Your task to perform on an android device: delete browsing data in the chrome app Image 0: 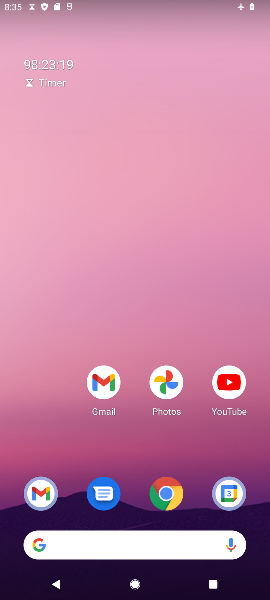
Step 0: drag from (150, 491) to (156, 189)
Your task to perform on an android device: delete browsing data in the chrome app Image 1: 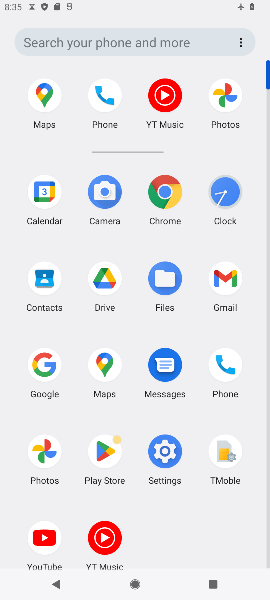
Step 1: click (170, 191)
Your task to perform on an android device: delete browsing data in the chrome app Image 2: 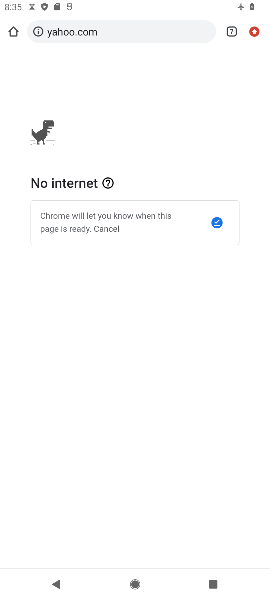
Step 2: click (260, 27)
Your task to perform on an android device: delete browsing data in the chrome app Image 3: 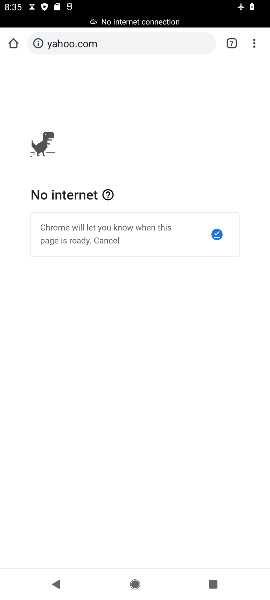
Step 3: click (254, 30)
Your task to perform on an android device: delete browsing data in the chrome app Image 4: 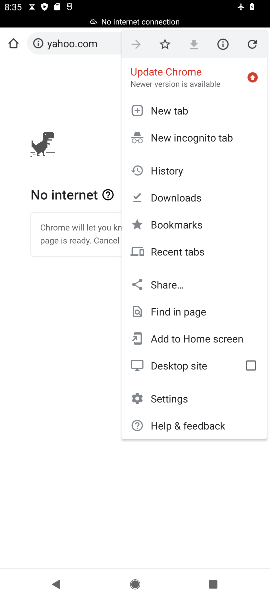
Step 4: click (163, 399)
Your task to perform on an android device: delete browsing data in the chrome app Image 5: 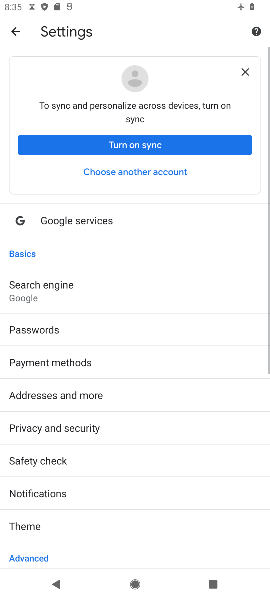
Step 5: drag from (85, 524) to (133, 172)
Your task to perform on an android device: delete browsing data in the chrome app Image 6: 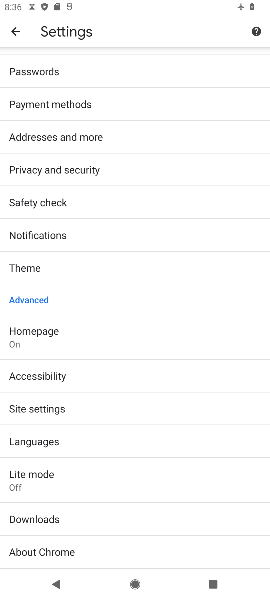
Step 6: click (72, 400)
Your task to perform on an android device: delete browsing data in the chrome app Image 7: 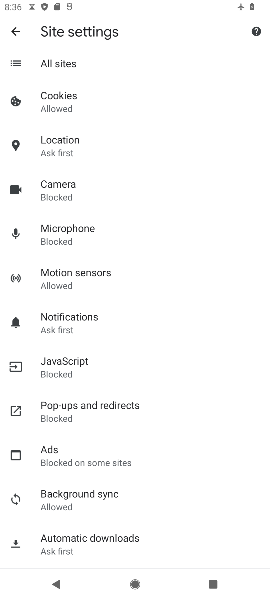
Step 7: click (12, 30)
Your task to perform on an android device: delete browsing data in the chrome app Image 8: 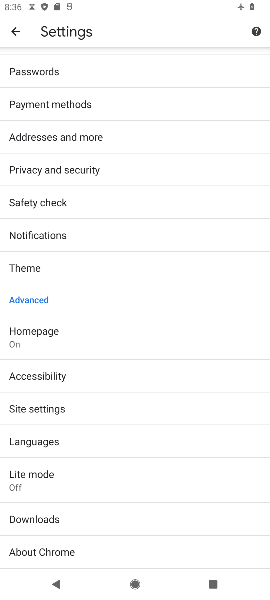
Step 8: drag from (74, 223) to (75, 389)
Your task to perform on an android device: delete browsing data in the chrome app Image 9: 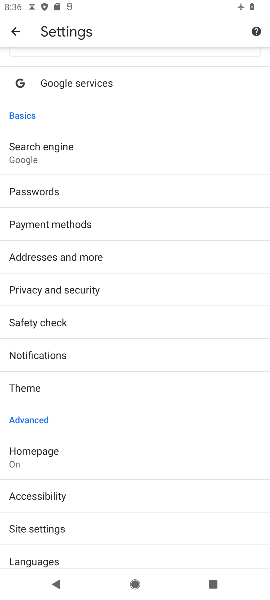
Step 9: drag from (71, 519) to (128, 211)
Your task to perform on an android device: delete browsing data in the chrome app Image 10: 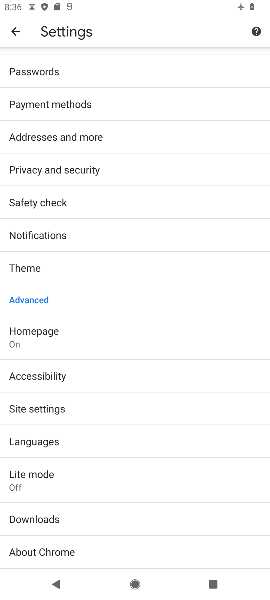
Step 10: drag from (98, 475) to (149, 231)
Your task to perform on an android device: delete browsing data in the chrome app Image 11: 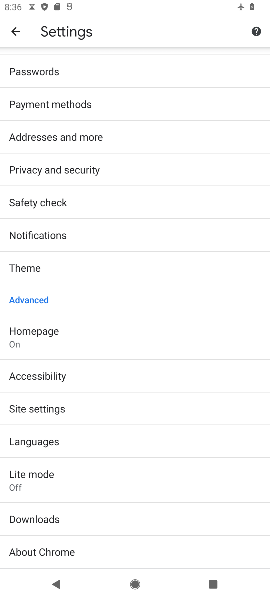
Step 11: click (71, 401)
Your task to perform on an android device: delete browsing data in the chrome app Image 12: 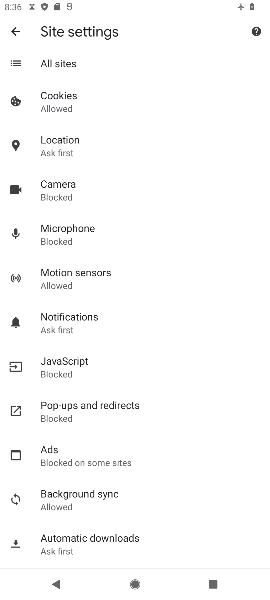
Step 12: click (19, 23)
Your task to perform on an android device: delete browsing data in the chrome app Image 13: 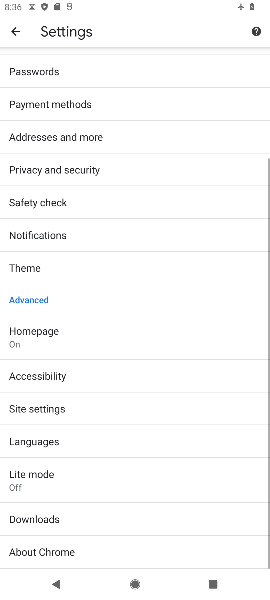
Step 13: click (19, 23)
Your task to perform on an android device: delete browsing data in the chrome app Image 14: 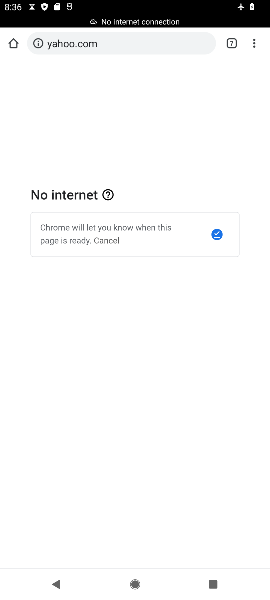
Step 14: click (258, 40)
Your task to perform on an android device: delete browsing data in the chrome app Image 15: 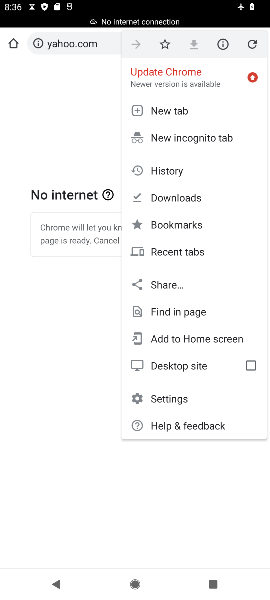
Step 15: click (181, 401)
Your task to perform on an android device: delete browsing data in the chrome app Image 16: 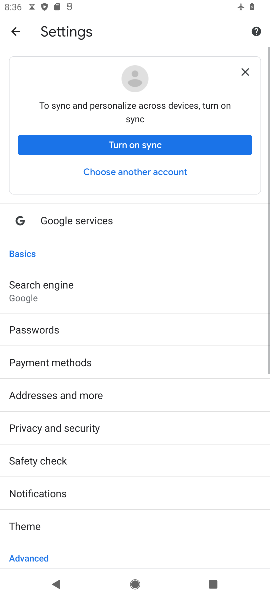
Step 16: drag from (73, 498) to (89, 324)
Your task to perform on an android device: delete browsing data in the chrome app Image 17: 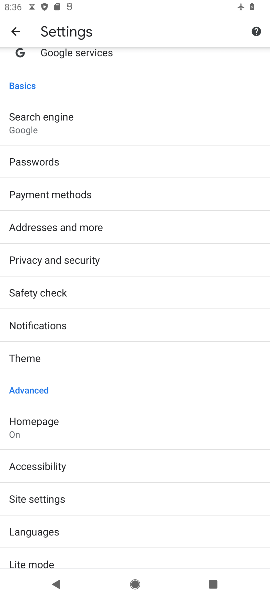
Step 17: drag from (73, 505) to (82, 379)
Your task to perform on an android device: delete browsing data in the chrome app Image 18: 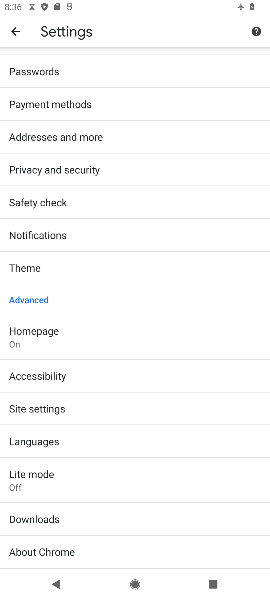
Step 18: click (75, 407)
Your task to perform on an android device: delete browsing data in the chrome app Image 19: 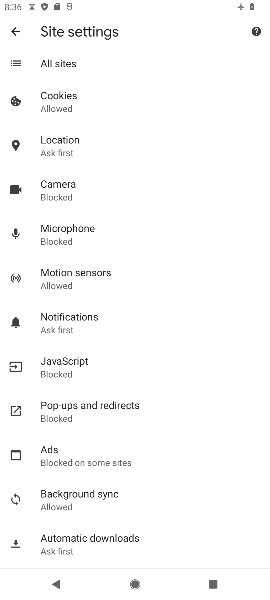
Step 19: click (53, 93)
Your task to perform on an android device: delete browsing data in the chrome app Image 20: 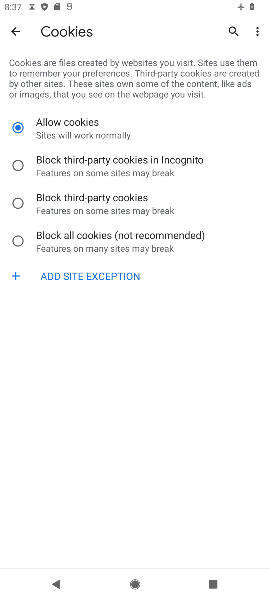
Step 20: click (20, 37)
Your task to perform on an android device: delete browsing data in the chrome app Image 21: 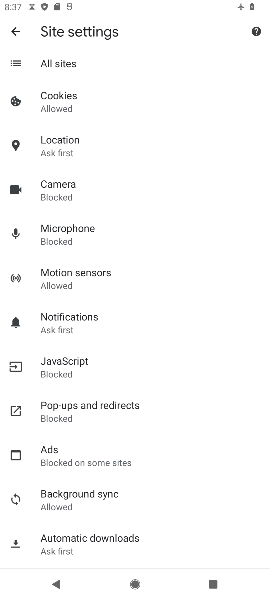
Step 21: task complete